Your task to perform on an android device: open app "Viber Messenger" (install if not already installed) and enter user name: "blameless@icloud.com" and password: "Yoknapatawpha" Image 0: 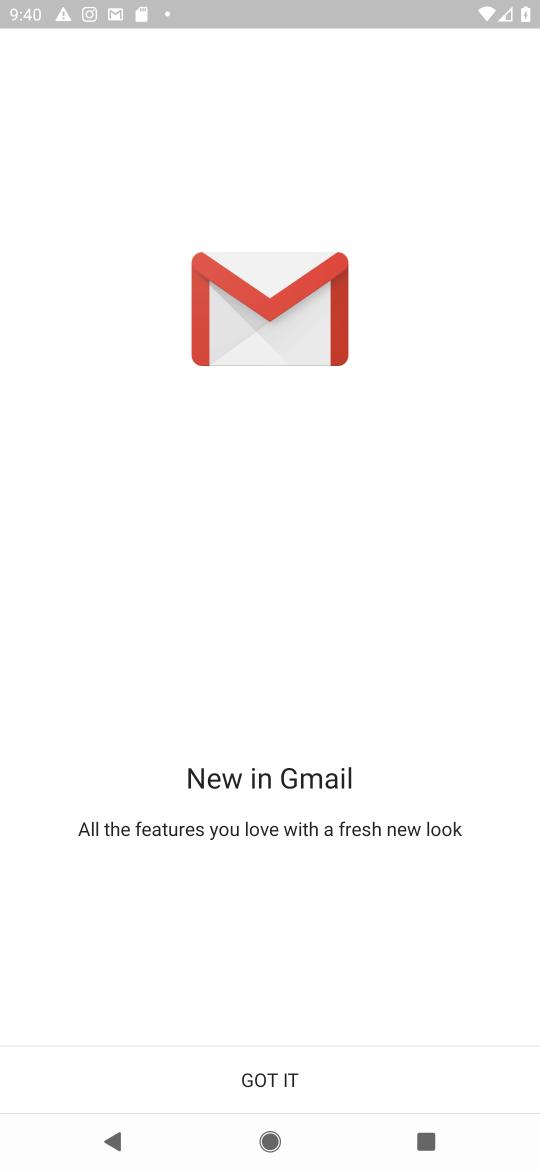
Step 0: press home button
Your task to perform on an android device: open app "Viber Messenger" (install if not already installed) and enter user name: "blameless@icloud.com" and password: "Yoknapatawpha" Image 1: 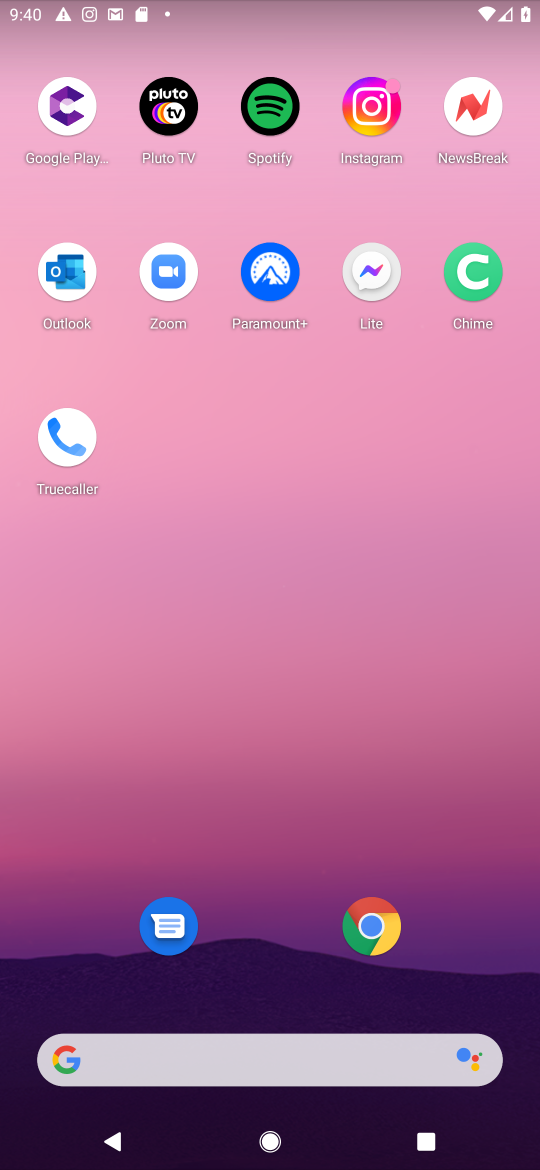
Step 1: drag from (229, 1016) to (288, 315)
Your task to perform on an android device: open app "Viber Messenger" (install if not already installed) and enter user name: "blameless@icloud.com" and password: "Yoknapatawpha" Image 2: 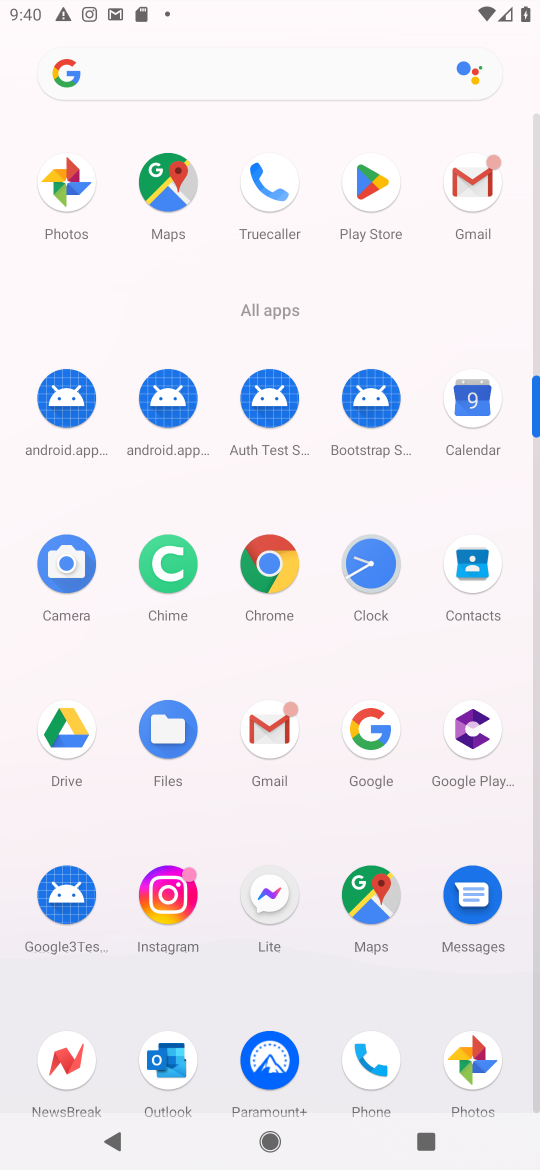
Step 2: click (368, 195)
Your task to perform on an android device: open app "Viber Messenger" (install if not already installed) and enter user name: "blameless@icloud.com" and password: "Yoknapatawpha" Image 3: 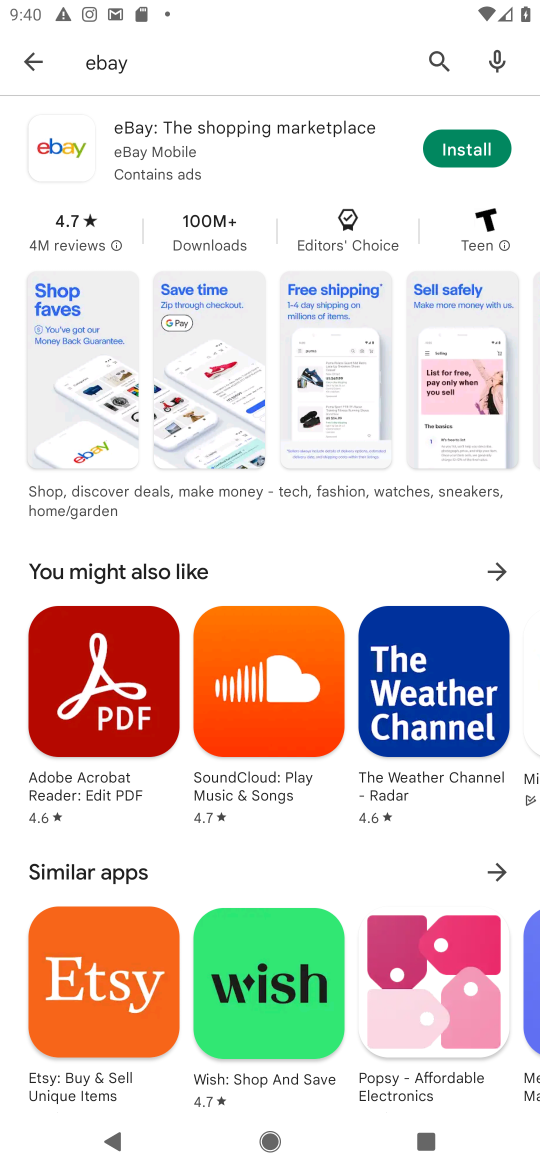
Step 3: click (153, 58)
Your task to perform on an android device: open app "Viber Messenger" (install if not already installed) and enter user name: "blameless@icloud.com" and password: "Yoknapatawpha" Image 4: 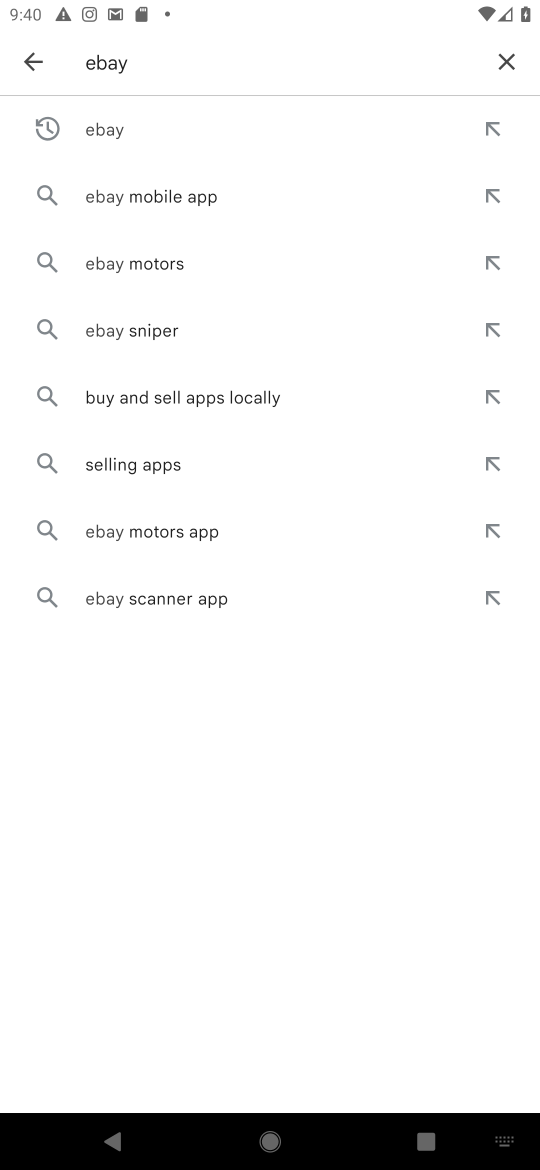
Step 4: click (510, 67)
Your task to perform on an android device: open app "Viber Messenger" (install if not already installed) and enter user name: "blameless@icloud.com" and password: "Yoknapatawpha" Image 5: 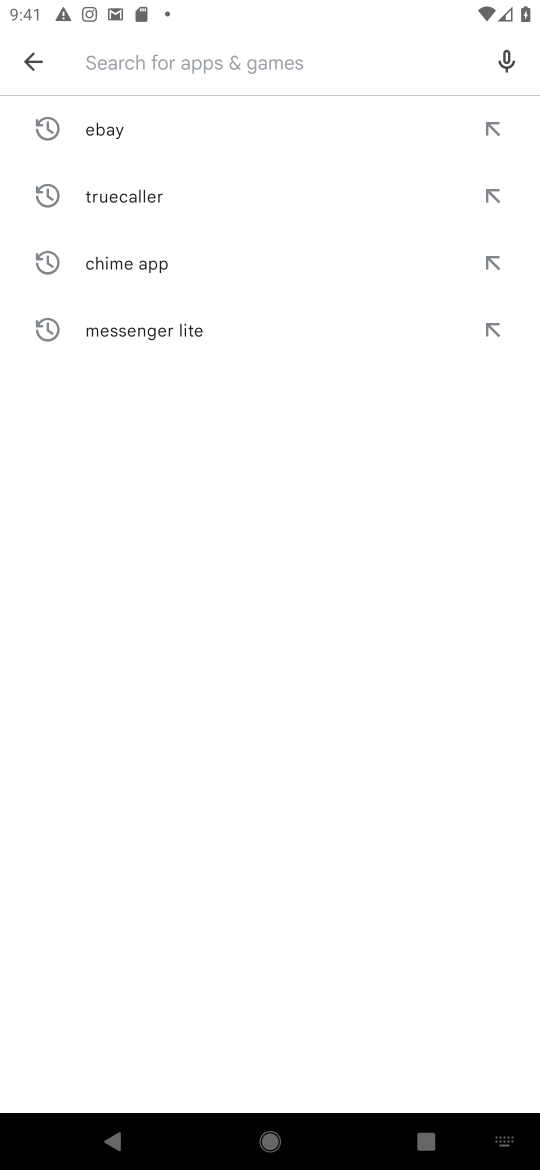
Step 5: type "Viber Messenger"
Your task to perform on an android device: open app "Viber Messenger" (install if not already installed) and enter user name: "blameless@icloud.com" and password: "Yoknapatawpha" Image 6: 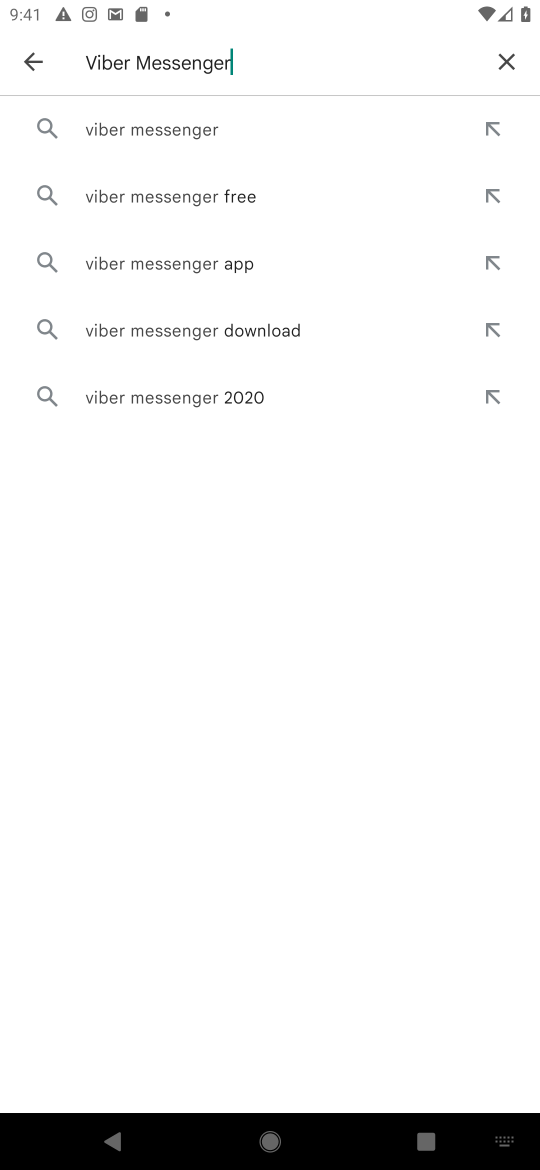
Step 6: click (195, 134)
Your task to perform on an android device: open app "Viber Messenger" (install if not already installed) and enter user name: "blameless@icloud.com" and password: "Yoknapatawpha" Image 7: 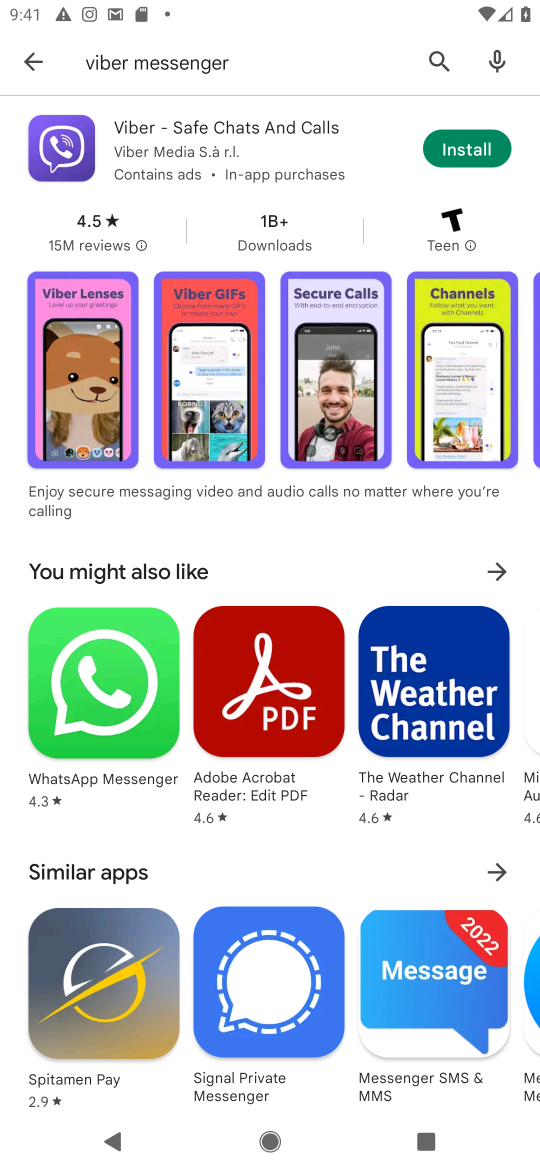
Step 7: click (465, 124)
Your task to perform on an android device: open app "Viber Messenger" (install if not already installed) and enter user name: "blameless@icloud.com" and password: "Yoknapatawpha" Image 8: 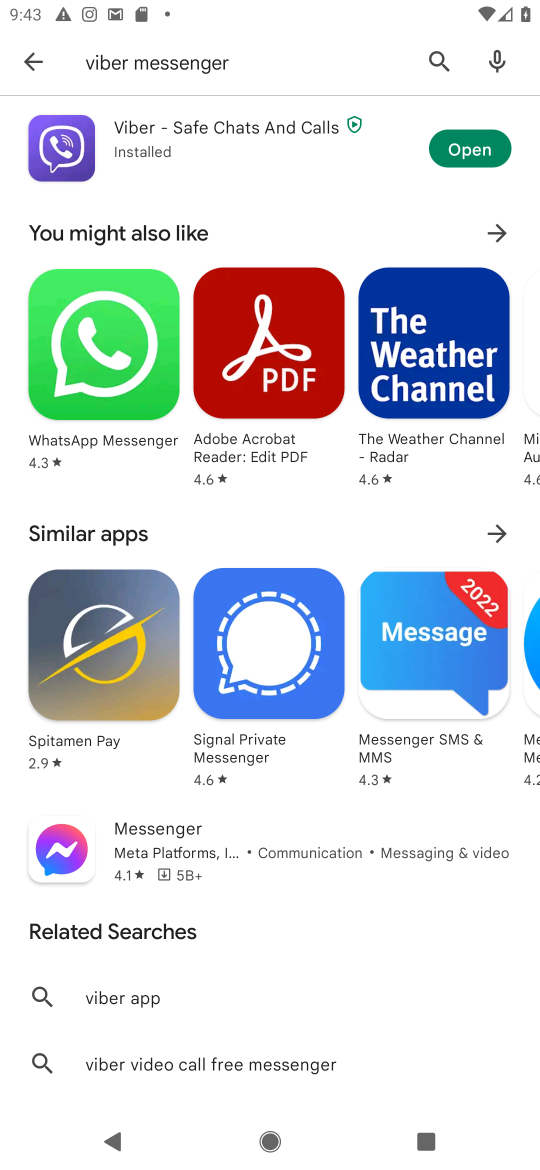
Step 8: click (478, 137)
Your task to perform on an android device: open app "Viber Messenger" (install if not already installed) and enter user name: "blameless@icloud.com" and password: "Yoknapatawpha" Image 9: 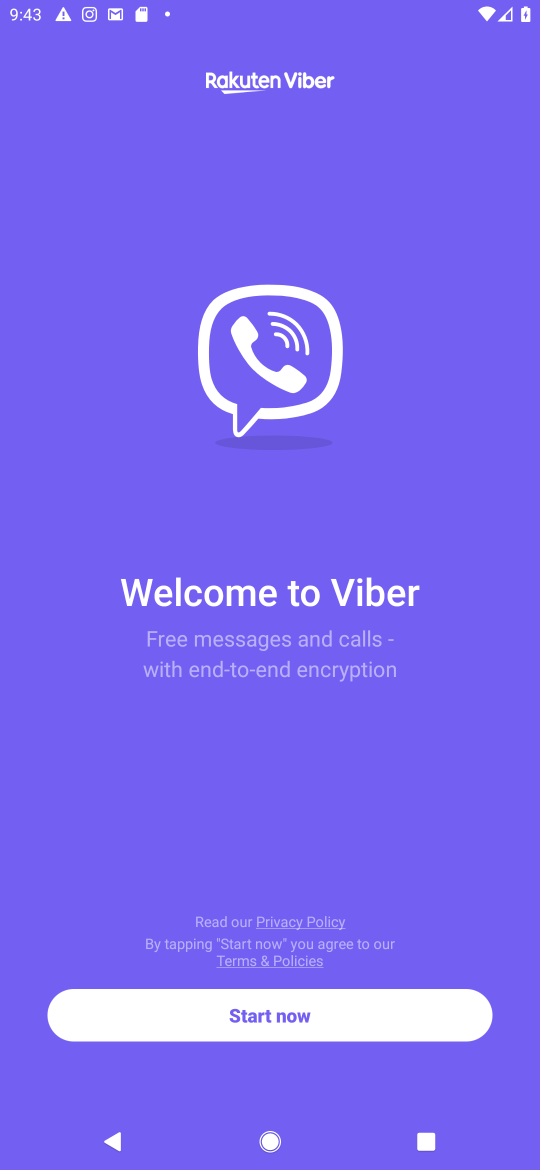
Step 9: click (291, 1016)
Your task to perform on an android device: open app "Viber Messenger" (install if not already installed) and enter user name: "blameless@icloud.com" and password: "Yoknapatawpha" Image 10: 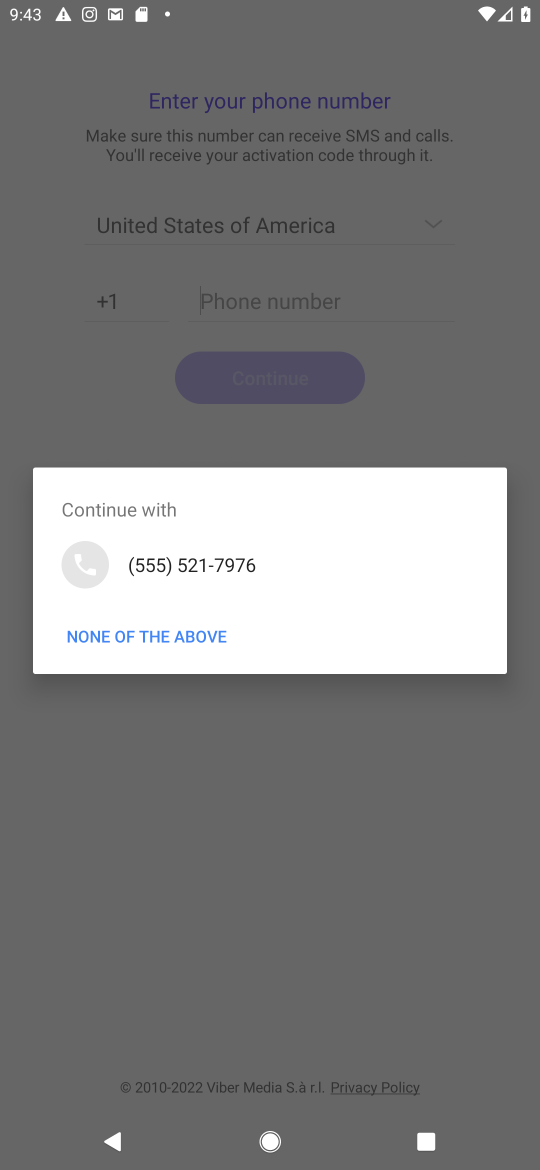
Step 10: click (199, 546)
Your task to perform on an android device: open app "Viber Messenger" (install if not already installed) and enter user name: "blameless@icloud.com" and password: "Yoknapatawpha" Image 11: 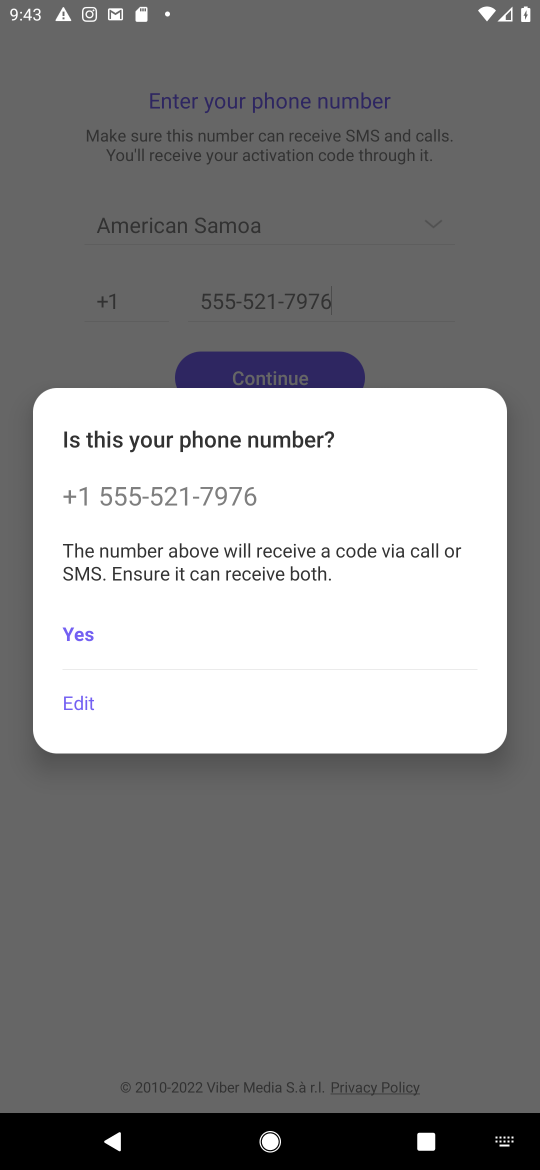
Step 11: click (108, 627)
Your task to perform on an android device: open app "Viber Messenger" (install if not already installed) and enter user name: "blameless@icloud.com" and password: "Yoknapatawpha" Image 12: 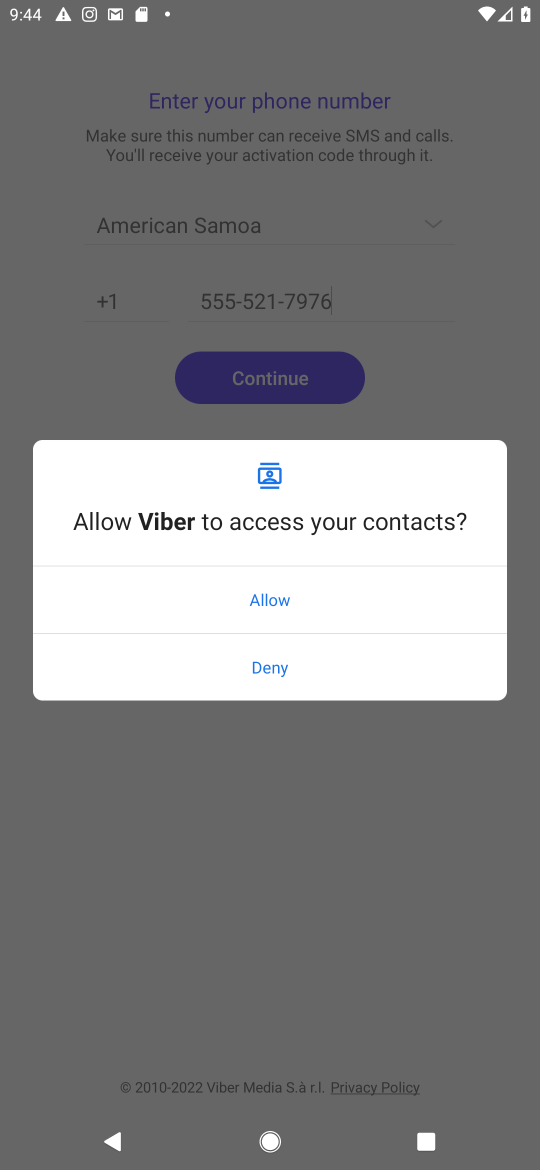
Step 12: click (216, 572)
Your task to perform on an android device: open app "Viber Messenger" (install if not already installed) and enter user name: "blameless@icloud.com" and password: "Yoknapatawpha" Image 13: 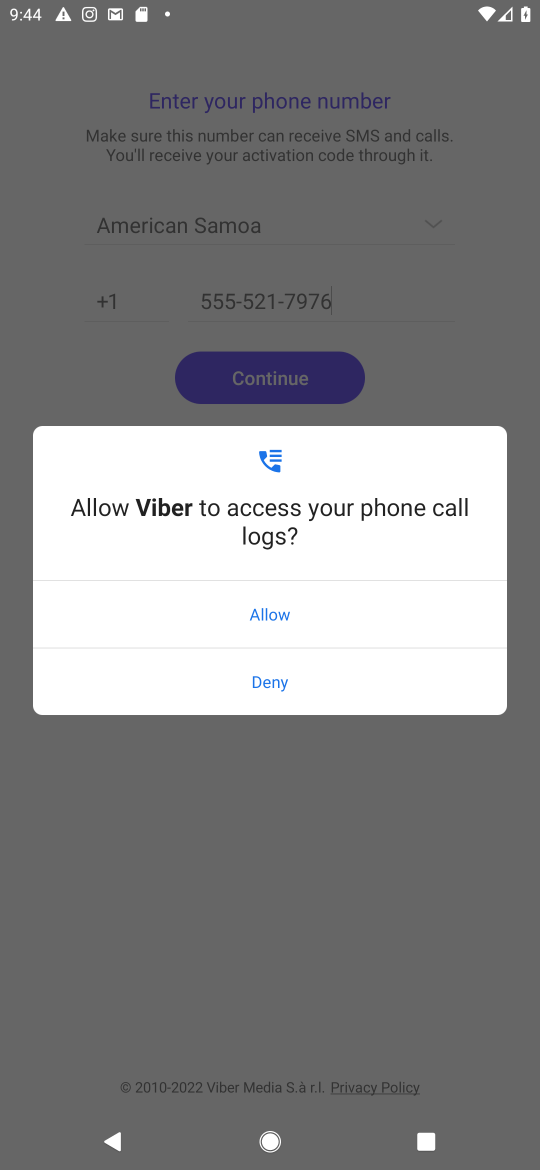
Step 13: click (218, 573)
Your task to perform on an android device: open app "Viber Messenger" (install if not already installed) and enter user name: "blameless@icloud.com" and password: "Yoknapatawpha" Image 14: 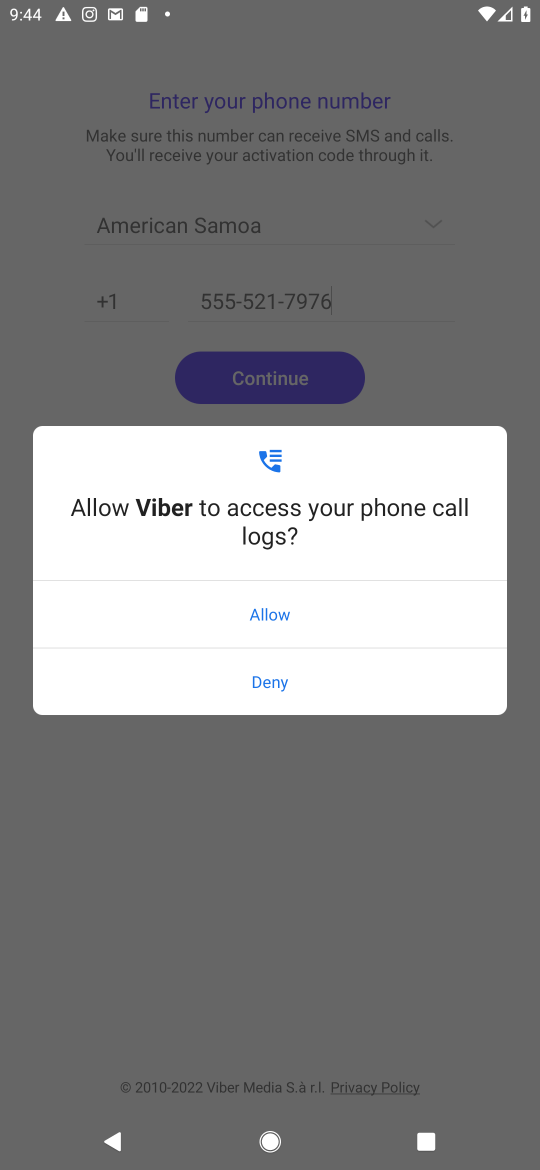
Step 14: click (183, 621)
Your task to perform on an android device: open app "Viber Messenger" (install if not already installed) and enter user name: "blameless@icloud.com" and password: "Yoknapatawpha" Image 15: 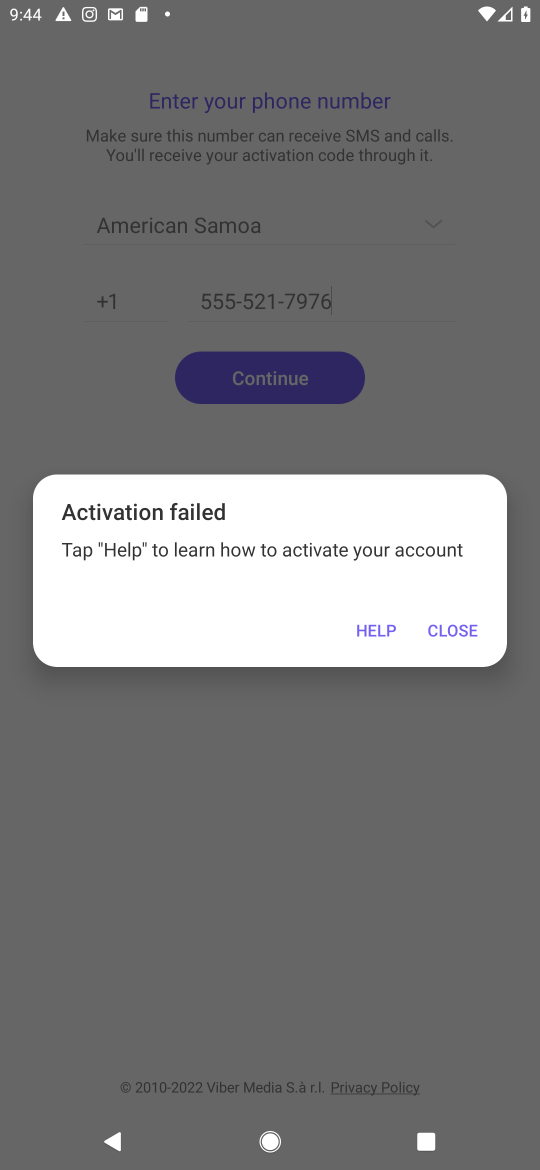
Step 15: click (455, 634)
Your task to perform on an android device: open app "Viber Messenger" (install if not already installed) and enter user name: "blameless@icloud.com" and password: "Yoknapatawpha" Image 16: 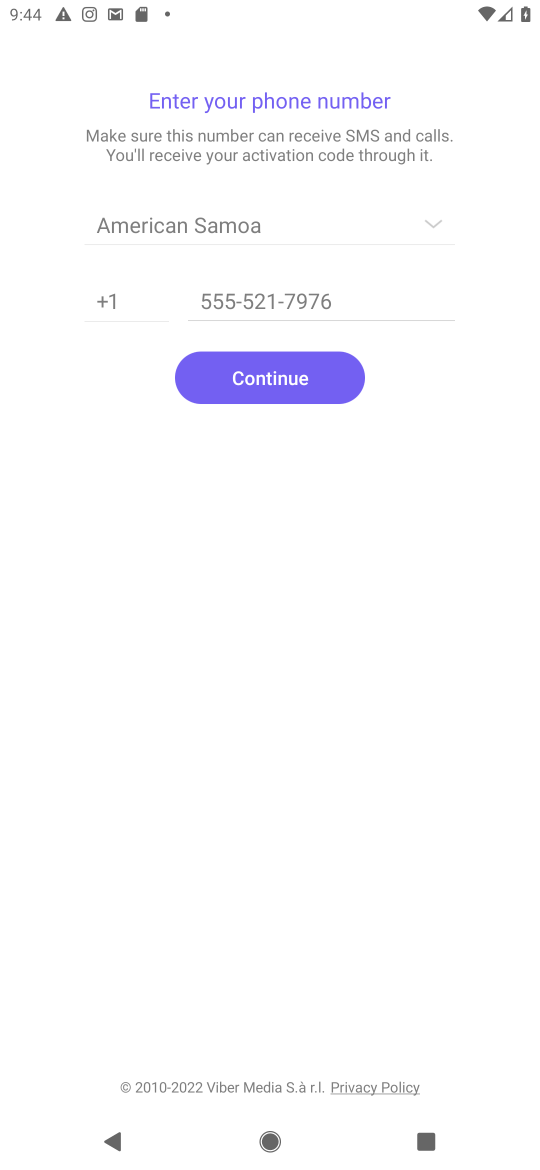
Step 16: task complete